Your task to perform on an android device: Is it going to rain this weekend? Image 0: 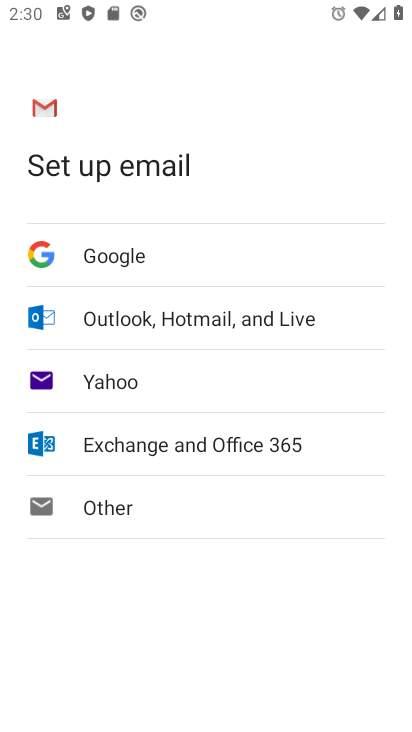
Step 0: press back button
Your task to perform on an android device: Is it going to rain this weekend? Image 1: 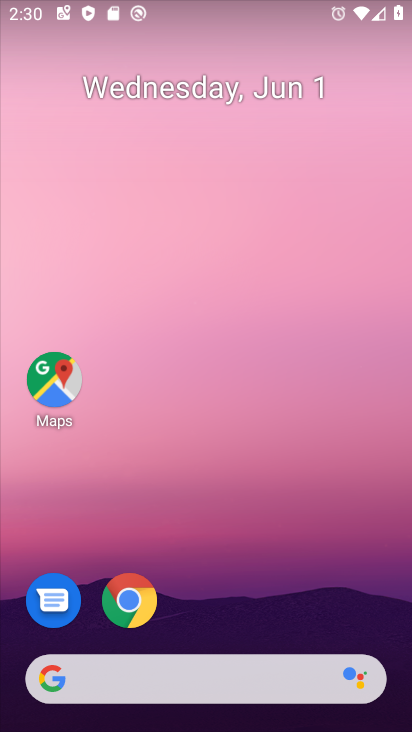
Step 1: drag from (303, 578) to (234, 24)
Your task to perform on an android device: Is it going to rain this weekend? Image 2: 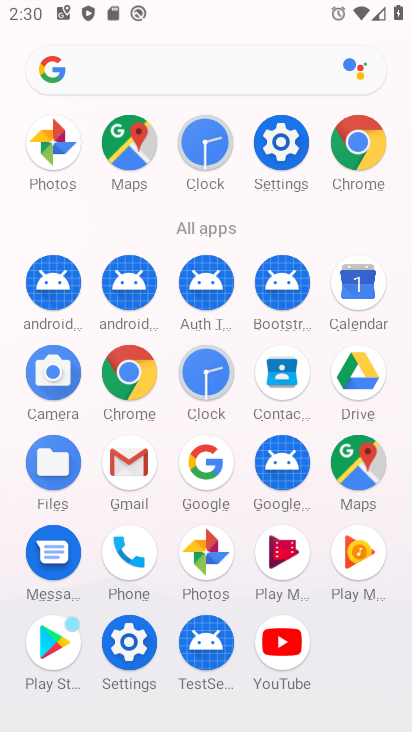
Step 2: drag from (5, 507) to (7, 224)
Your task to perform on an android device: Is it going to rain this weekend? Image 3: 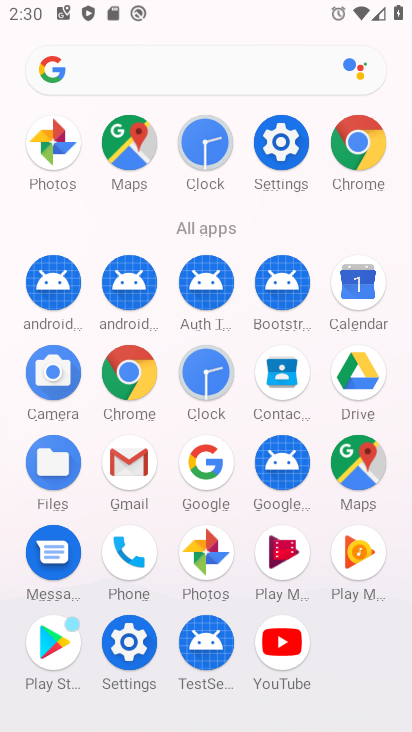
Step 3: click (126, 371)
Your task to perform on an android device: Is it going to rain this weekend? Image 4: 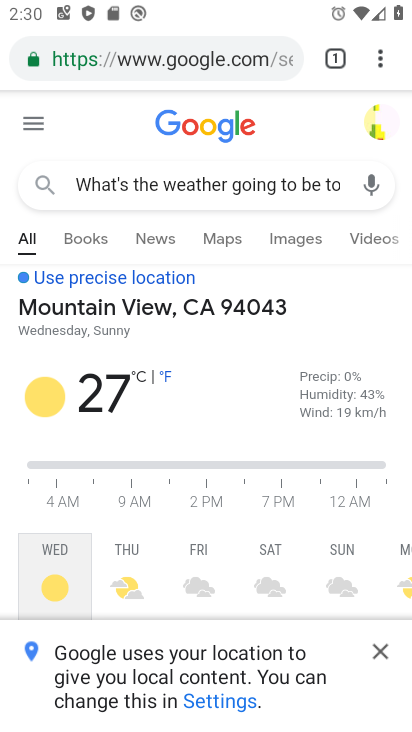
Step 4: click (171, 52)
Your task to perform on an android device: Is it going to rain this weekend? Image 5: 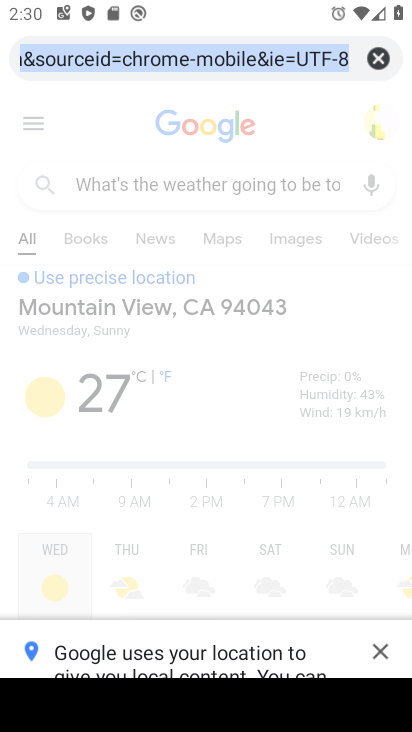
Step 5: click (376, 63)
Your task to perform on an android device: Is it going to rain this weekend? Image 6: 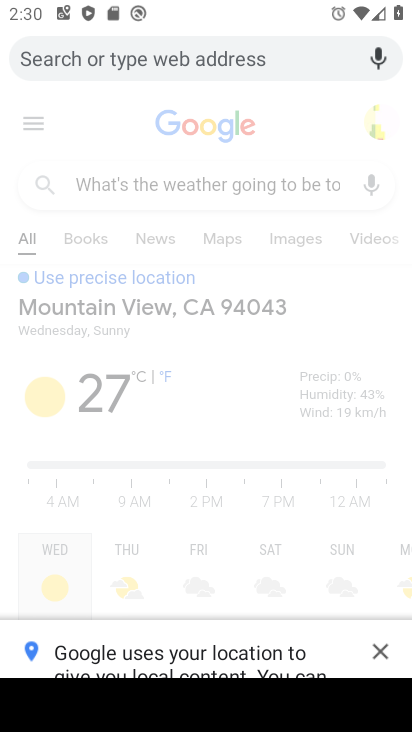
Step 6: type "Is it going to rain this weekend?"
Your task to perform on an android device: Is it going to rain this weekend? Image 7: 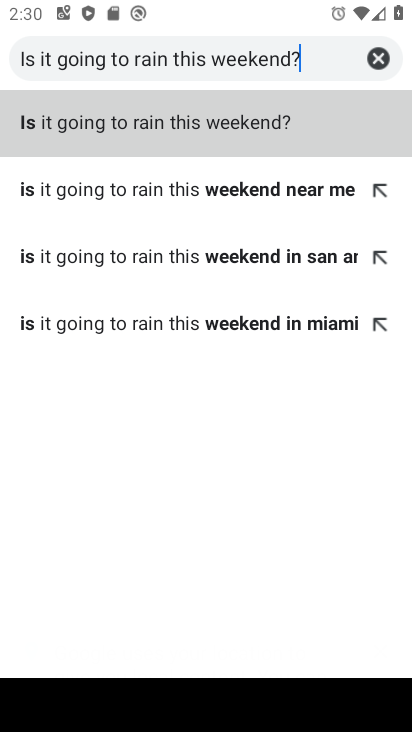
Step 7: type ""
Your task to perform on an android device: Is it going to rain this weekend? Image 8: 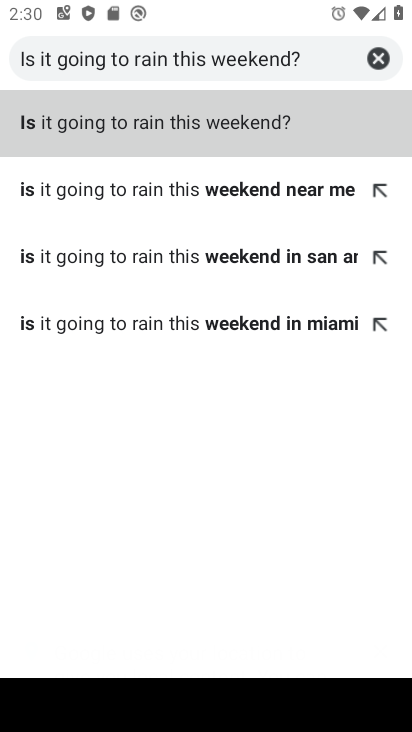
Step 8: click (211, 136)
Your task to perform on an android device: Is it going to rain this weekend? Image 9: 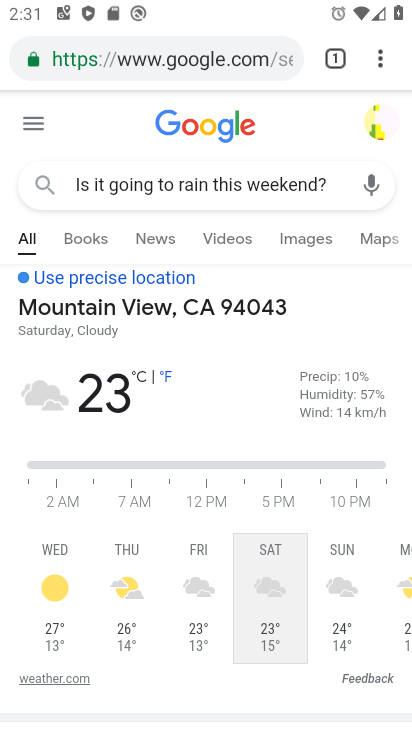
Step 9: task complete